Your task to perform on an android device: toggle location history Image 0: 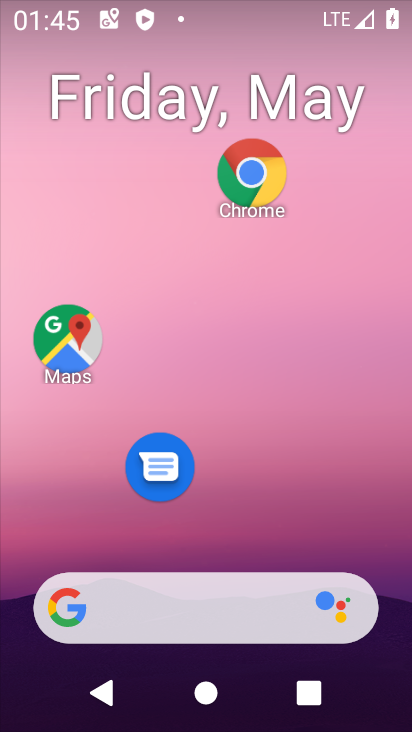
Step 0: drag from (279, 665) to (332, 278)
Your task to perform on an android device: toggle location history Image 1: 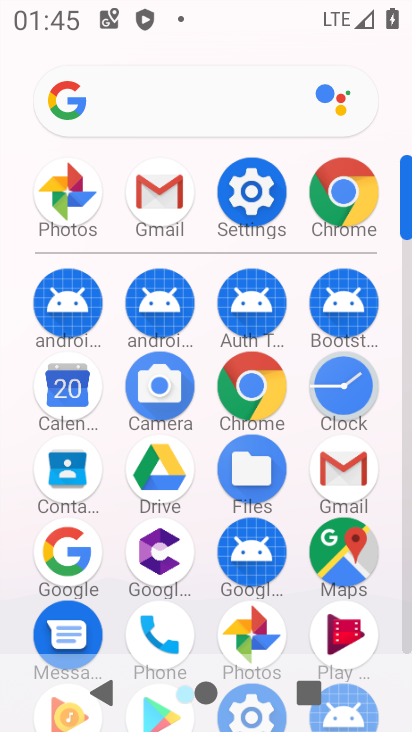
Step 1: click (227, 198)
Your task to perform on an android device: toggle location history Image 2: 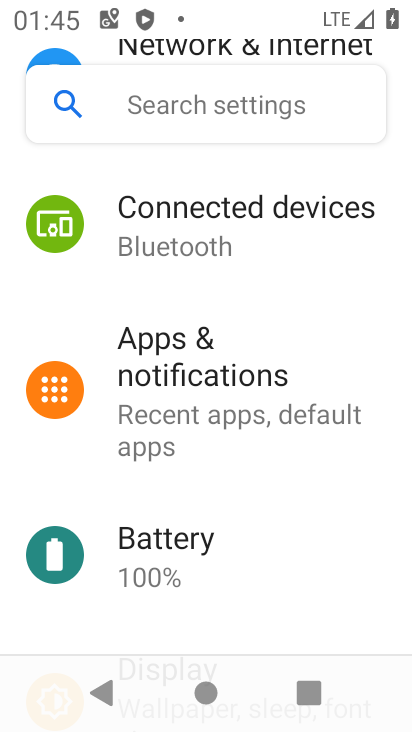
Step 2: click (162, 100)
Your task to perform on an android device: toggle location history Image 3: 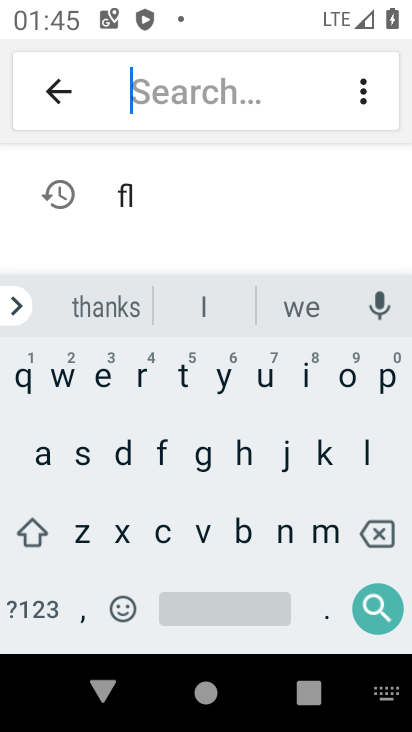
Step 3: click (375, 455)
Your task to perform on an android device: toggle location history Image 4: 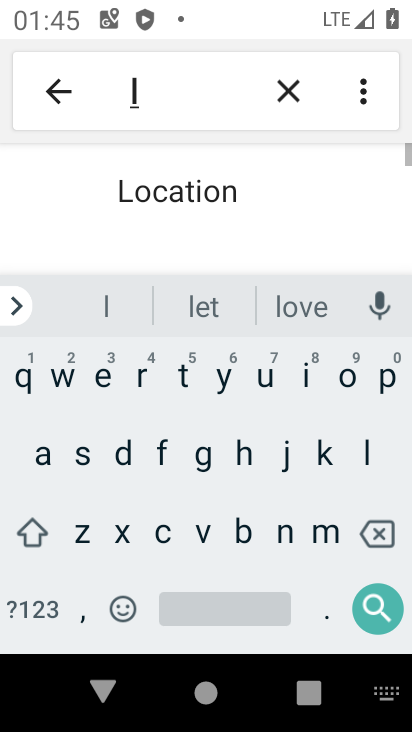
Step 4: click (343, 374)
Your task to perform on an android device: toggle location history Image 5: 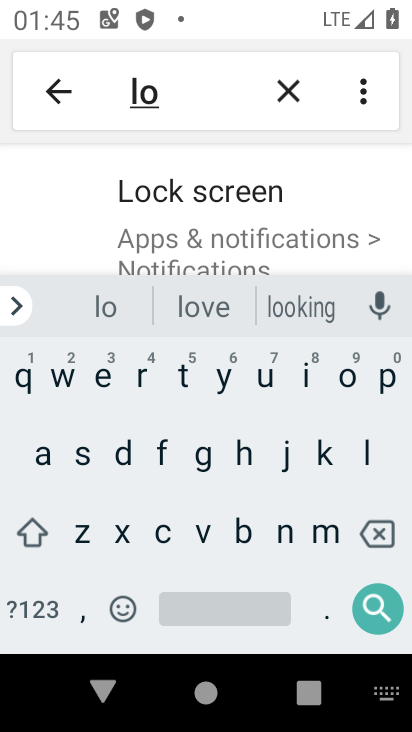
Step 5: press back button
Your task to perform on an android device: toggle location history Image 6: 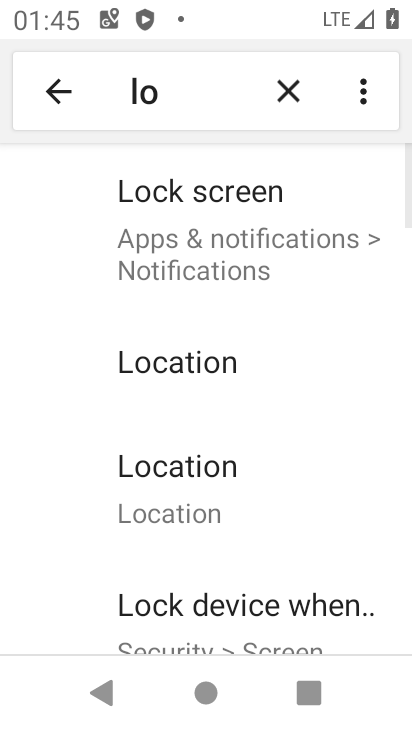
Step 6: click (206, 487)
Your task to perform on an android device: toggle location history Image 7: 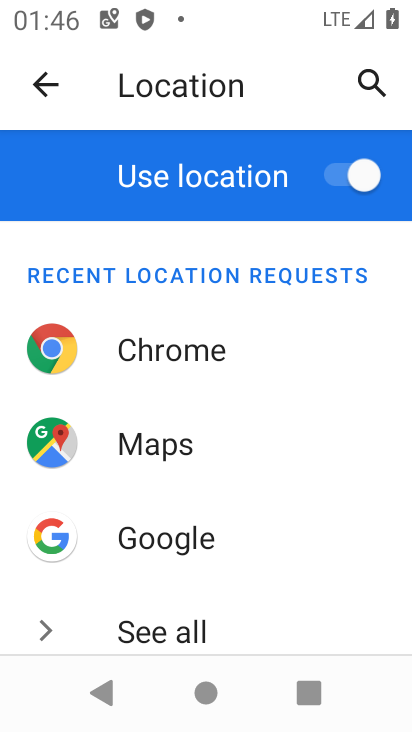
Step 7: drag from (305, 568) to (230, 261)
Your task to perform on an android device: toggle location history Image 8: 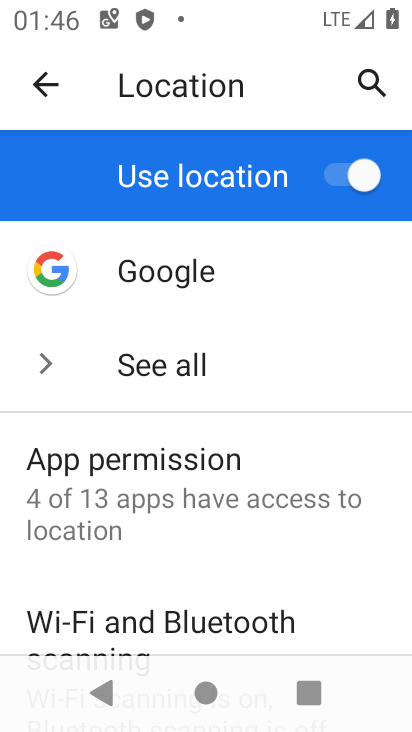
Step 8: drag from (192, 509) to (172, 290)
Your task to perform on an android device: toggle location history Image 9: 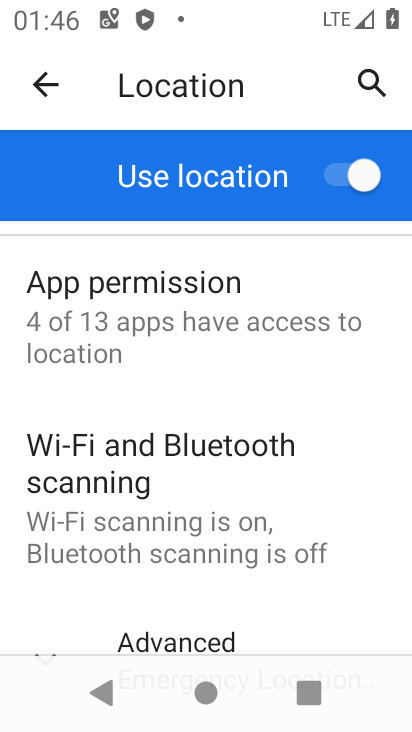
Step 9: drag from (107, 574) to (118, 294)
Your task to perform on an android device: toggle location history Image 10: 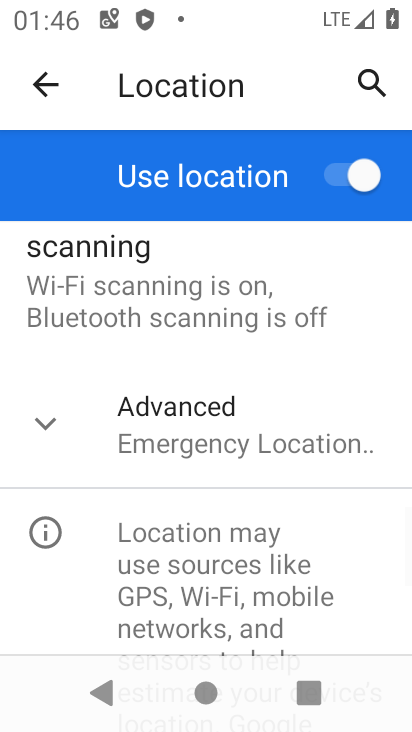
Step 10: click (42, 445)
Your task to perform on an android device: toggle location history Image 11: 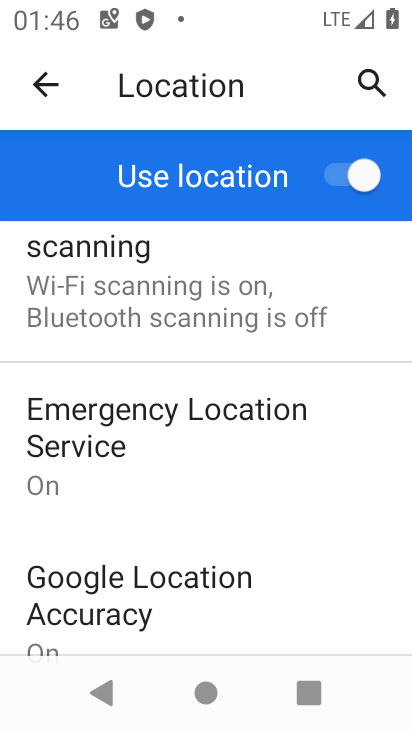
Step 11: drag from (206, 576) to (187, 420)
Your task to perform on an android device: toggle location history Image 12: 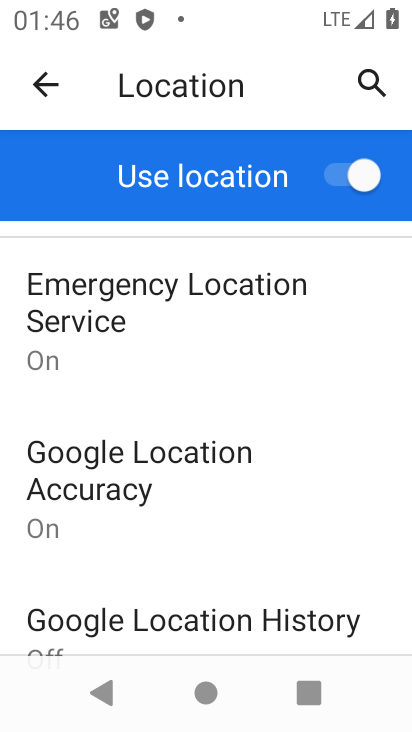
Step 12: click (167, 607)
Your task to perform on an android device: toggle location history Image 13: 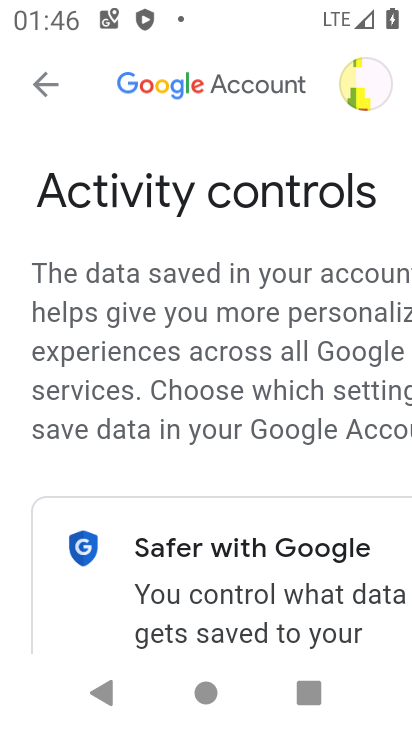
Step 13: task complete